Your task to perform on an android device: Open Yahoo.com Image 0: 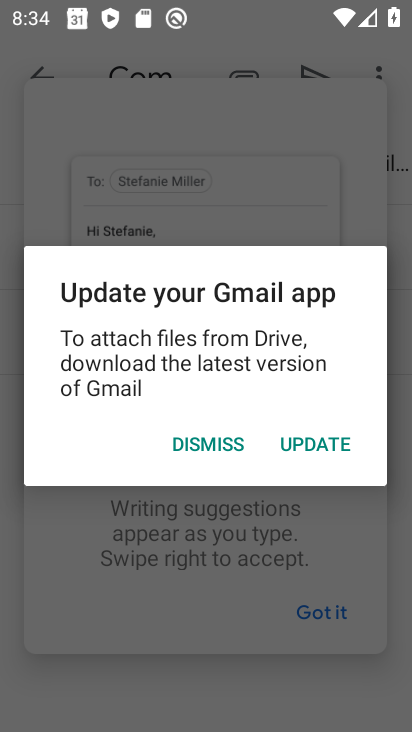
Step 0: press back button
Your task to perform on an android device: Open Yahoo.com Image 1: 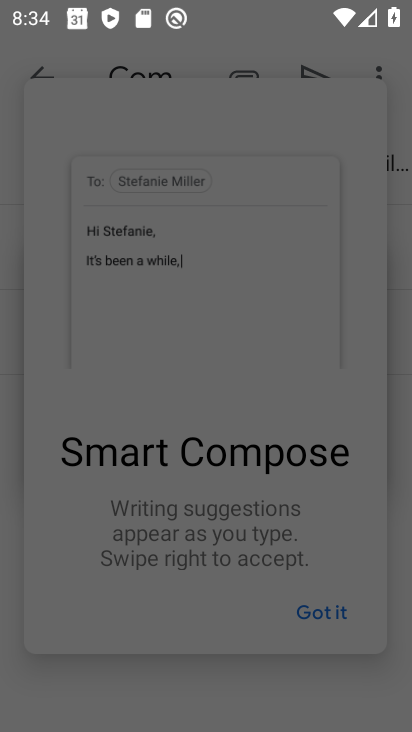
Step 1: press back button
Your task to perform on an android device: Open Yahoo.com Image 2: 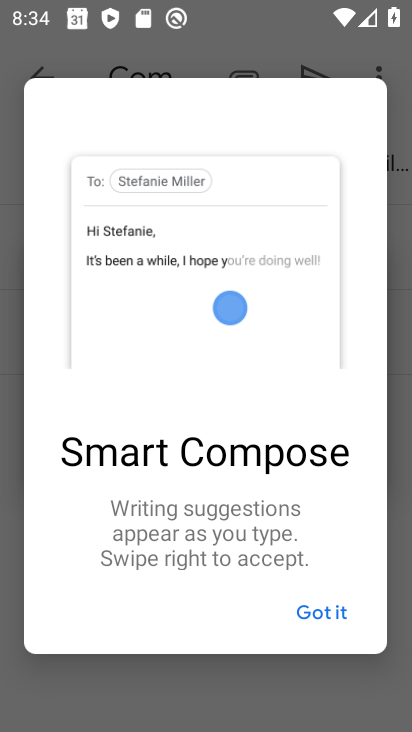
Step 2: press home button
Your task to perform on an android device: Open Yahoo.com Image 3: 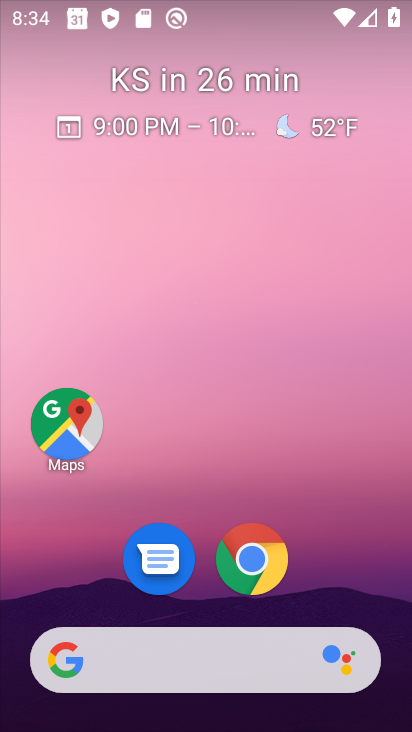
Step 3: drag from (329, 428) to (269, 0)
Your task to perform on an android device: Open Yahoo.com Image 4: 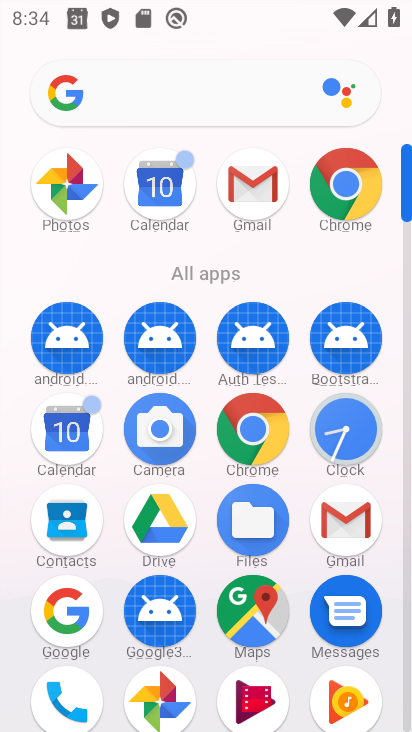
Step 4: click (346, 180)
Your task to perform on an android device: Open Yahoo.com Image 5: 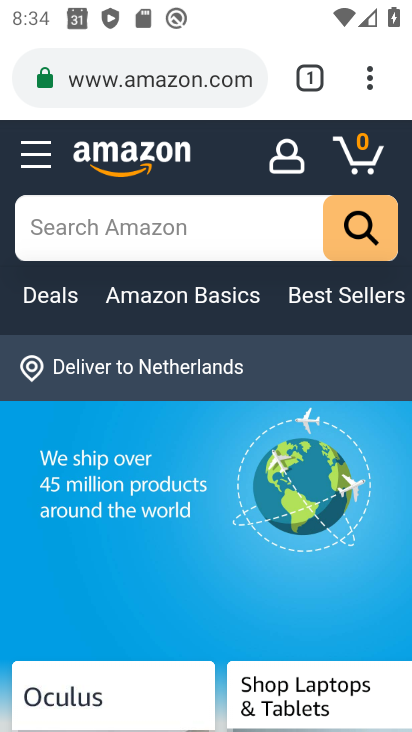
Step 5: click (203, 88)
Your task to perform on an android device: Open Yahoo.com Image 6: 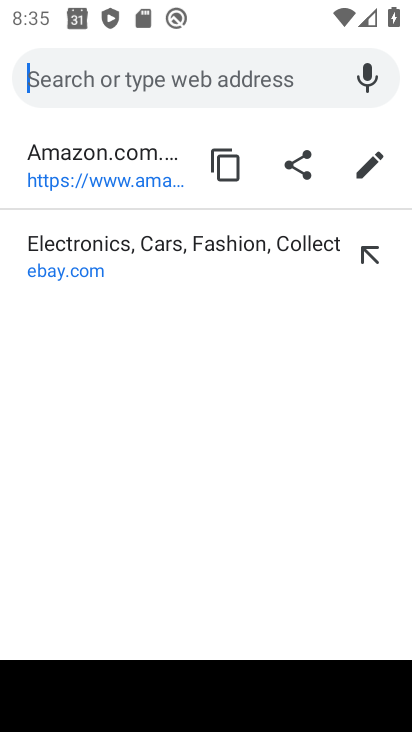
Step 6: type " Yahoo.com"
Your task to perform on an android device: Open Yahoo.com Image 7: 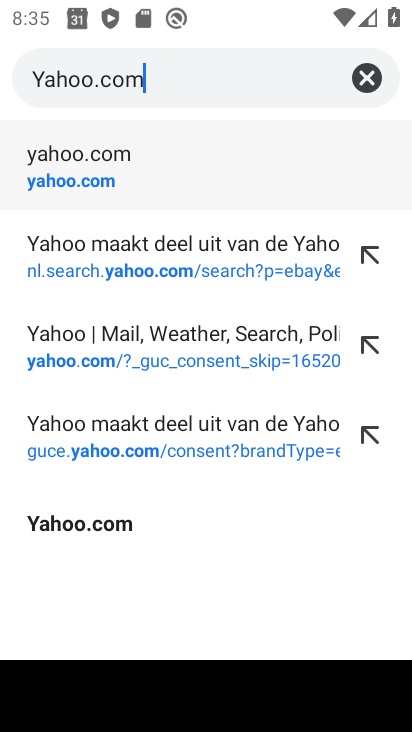
Step 7: type ""
Your task to perform on an android device: Open Yahoo.com Image 8: 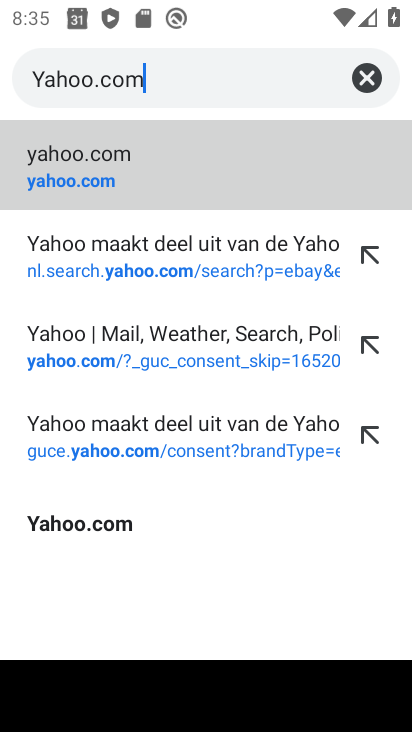
Step 8: click (219, 171)
Your task to perform on an android device: Open Yahoo.com Image 9: 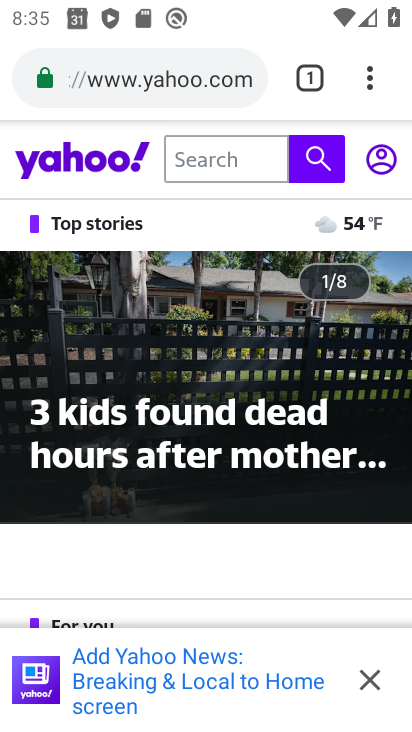
Step 9: task complete